Your task to perform on an android device: Open my contact list Image 0: 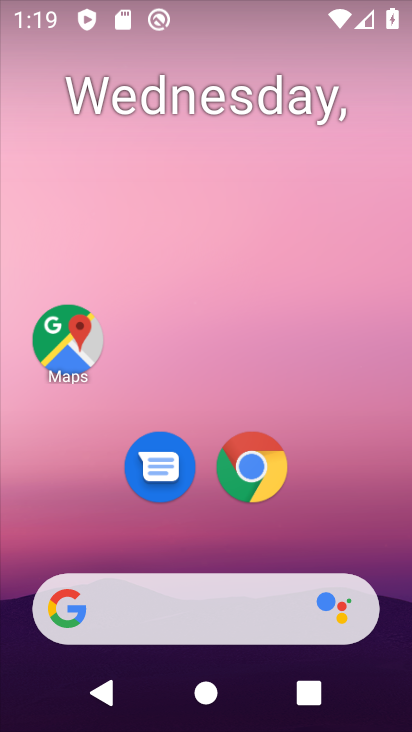
Step 0: drag from (287, 338) to (203, 2)
Your task to perform on an android device: Open my contact list Image 1: 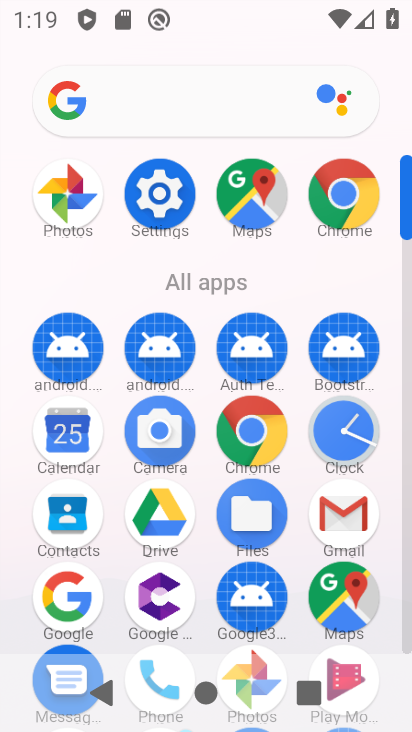
Step 1: click (77, 518)
Your task to perform on an android device: Open my contact list Image 2: 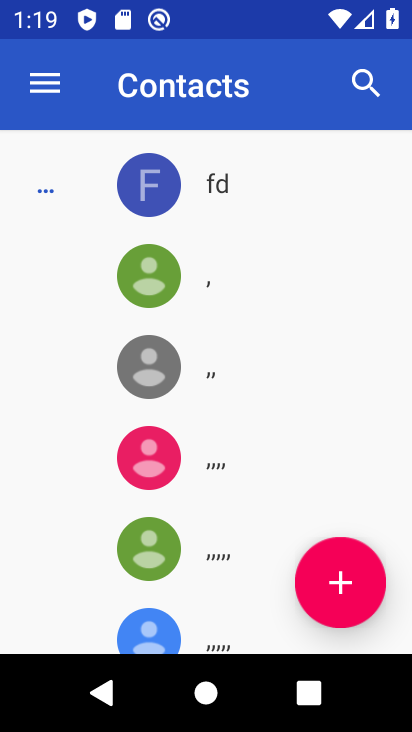
Step 2: task complete